Your task to perform on an android device: Open Chrome and go to settings Image 0: 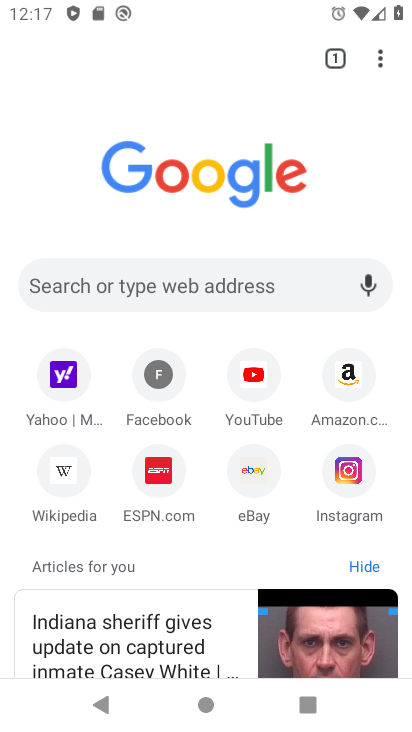
Step 0: drag from (200, 550) to (240, 152)
Your task to perform on an android device: Open Chrome and go to settings Image 1: 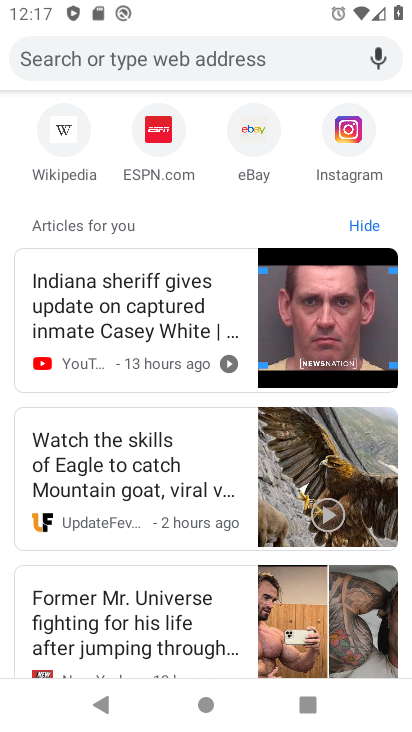
Step 1: task complete